Your task to perform on an android device: Open settings on Google Maps Image 0: 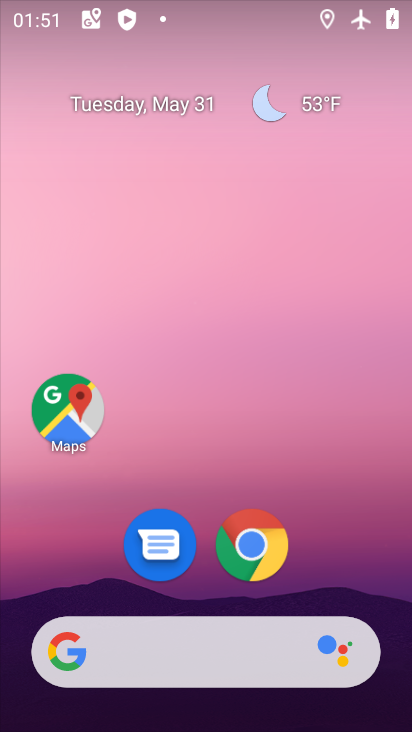
Step 0: click (74, 414)
Your task to perform on an android device: Open settings on Google Maps Image 1: 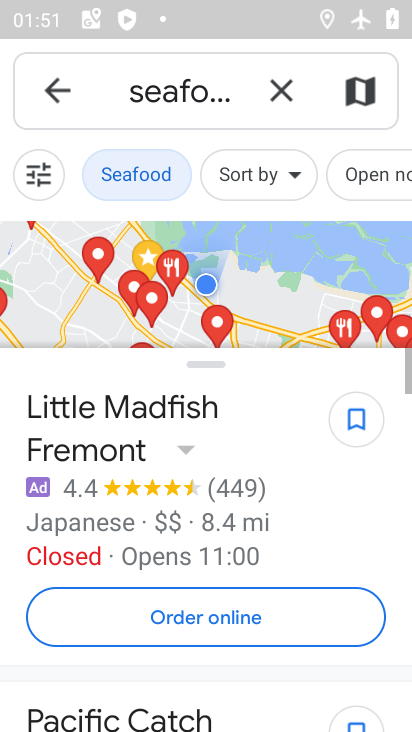
Step 1: click (58, 97)
Your task to perform on an android device: Open settings on Google Maps Image 2: 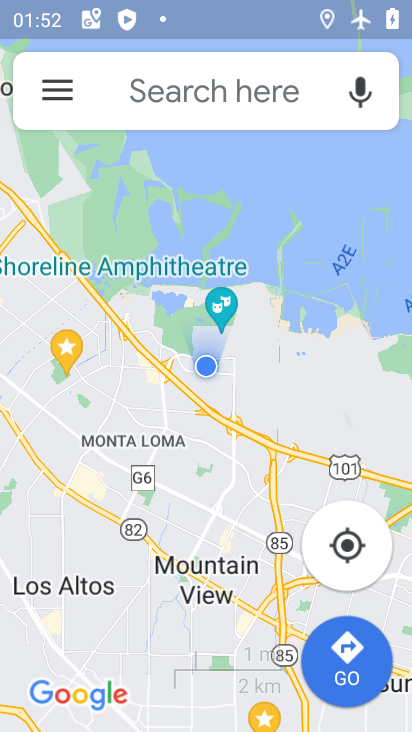
Step 2: click (58, 96)
Your task to perform on an android device: Open settings on Google Maps Image 3: 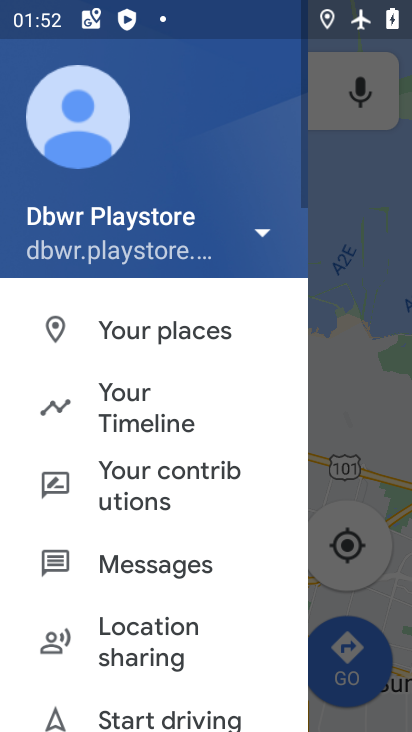
Step 3: drag from (125, 613) to (96, 138)
Your task to perform on an android device: Open settings on Google Maps Image 4: 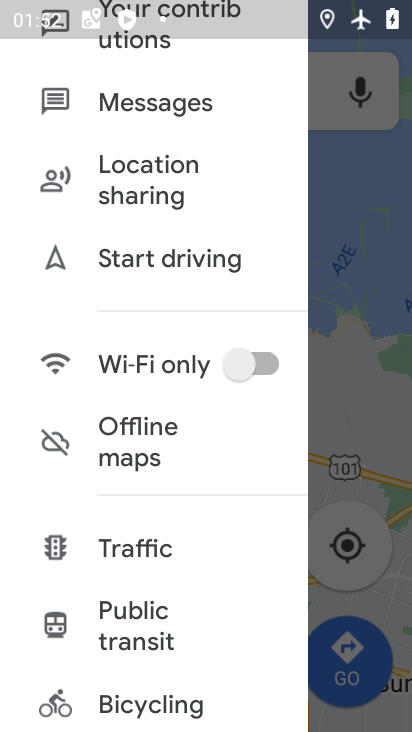
Step 4: drag from (130, 612) to (117, 277)
Your task to perform on an android device: Open settings on Google Maps Image 5: 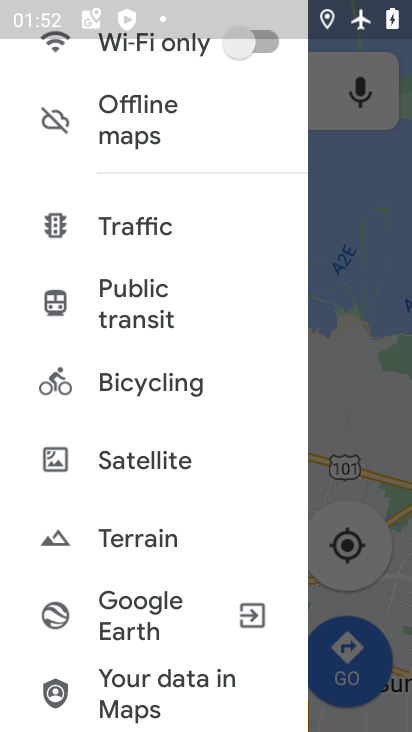
Step 5: drag from (155, 655) to (138, 399)
Your task to perform on an android device: Open settings on Google Maps Image 6: 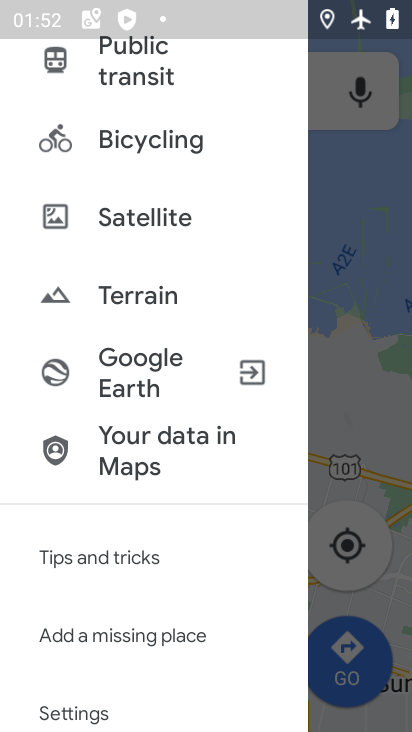
Step 6: drag from (158, 626) to (130, 401)
Your task to perform on an android device: Open settings on Google Maps Image 7: 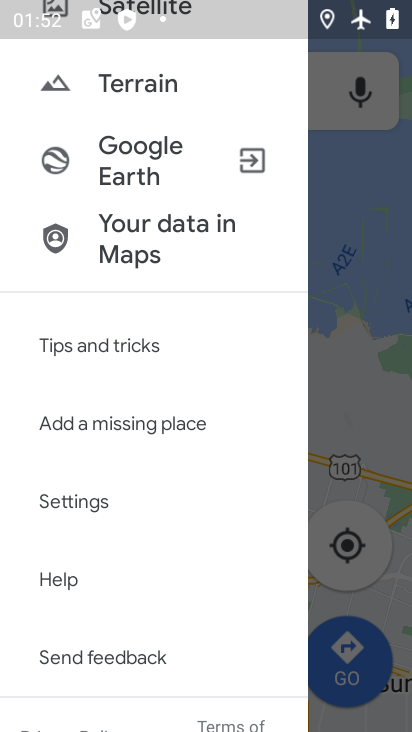
Step 7: click (122, 506)
Your task to perform on an android device: Open settings on Google Maps Image 8: 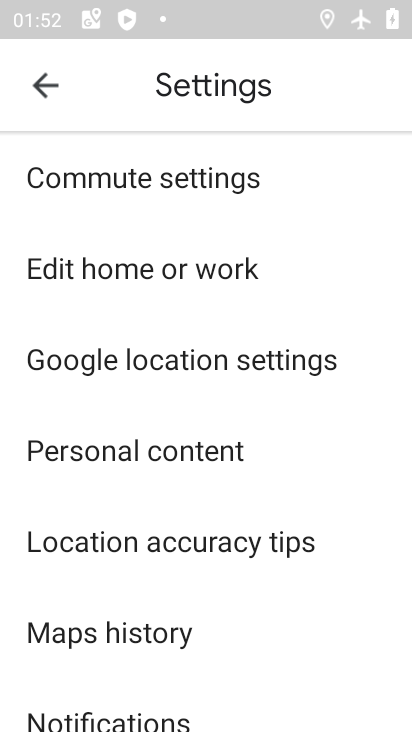
Step 8: task complete